Your task to perform on an android device: Show me popular games on the Play Store Image 0: 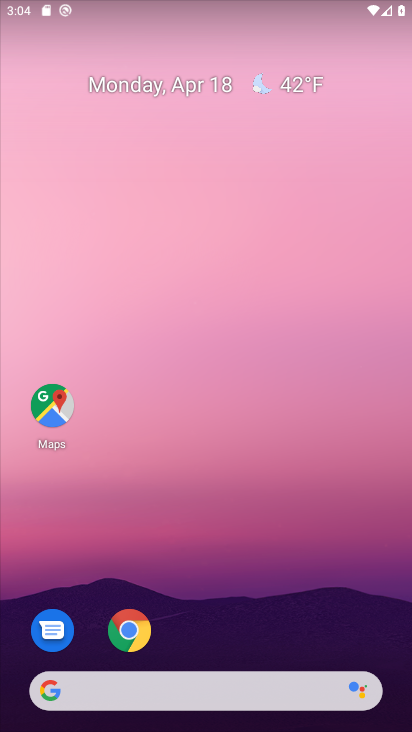
Step 0: drag from (248, 620) to (308, 247)
Your task to perform on an android device: Show me popular games on the Play Store Image 1: 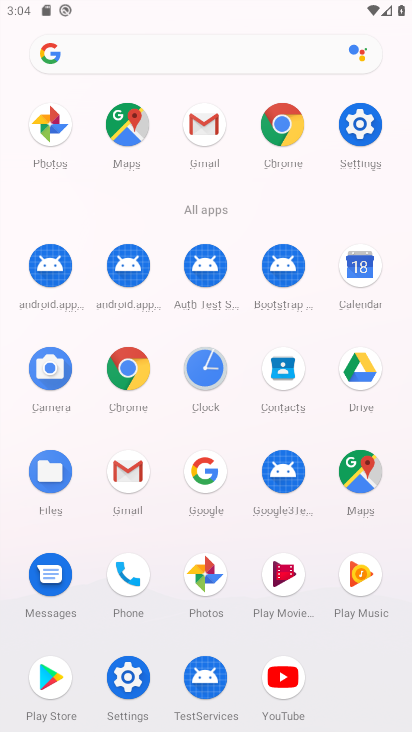
Step 1: click (37, 677)
Your task to perform on an android device: Show me popular games on the Play Store Image 2: 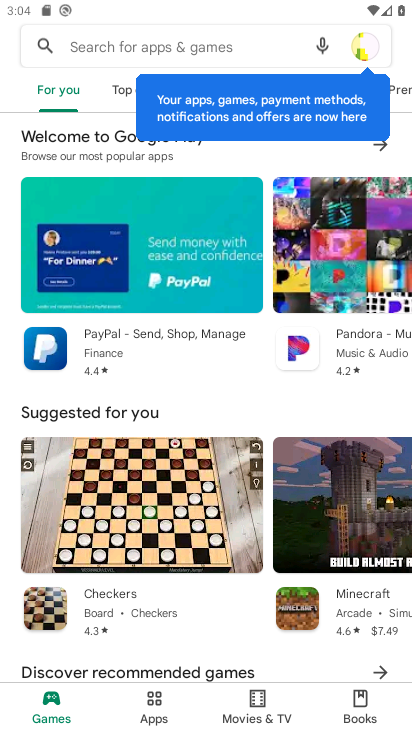
Step 2: drag from (263, 188) to (210, 697)
Your task to perform on an android device: Show me popular games on the Play Store Image 3: 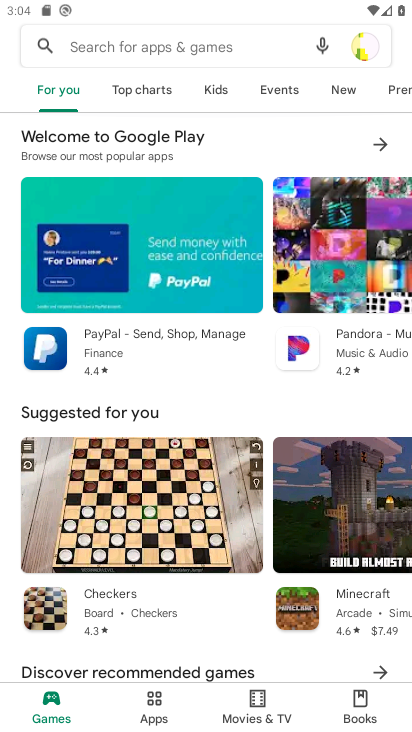
Step 3: click (156, 530)
Your task to perform on an android device: Show me popular games on the Play Store Image 4: 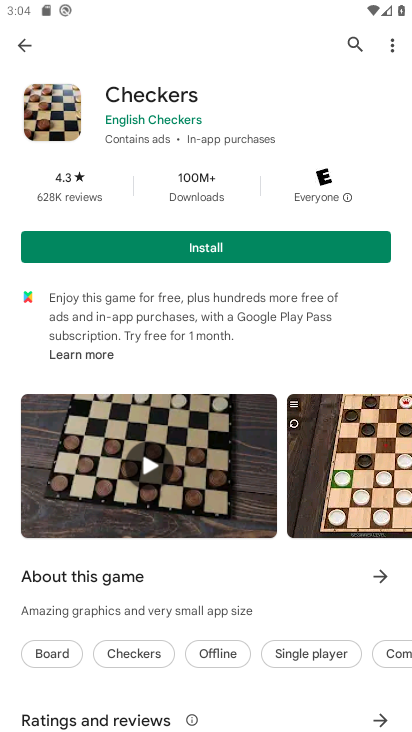
Step 4: task complete